Your task to perform on an android device: Go to internet settings Image 0: 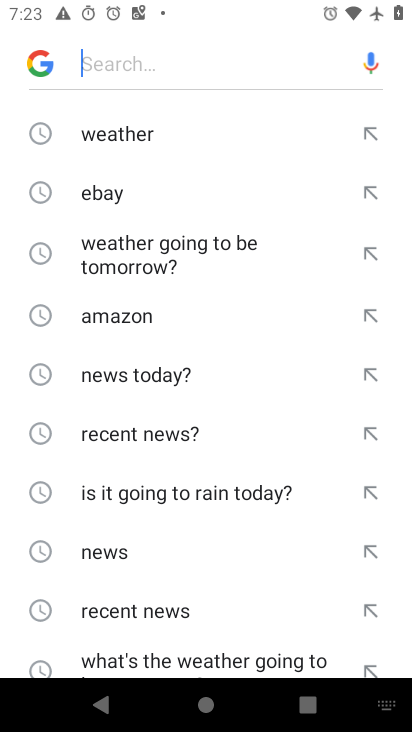
Step 0: press home button
Your task to perform on an android device: Go to internet settings Image 1: 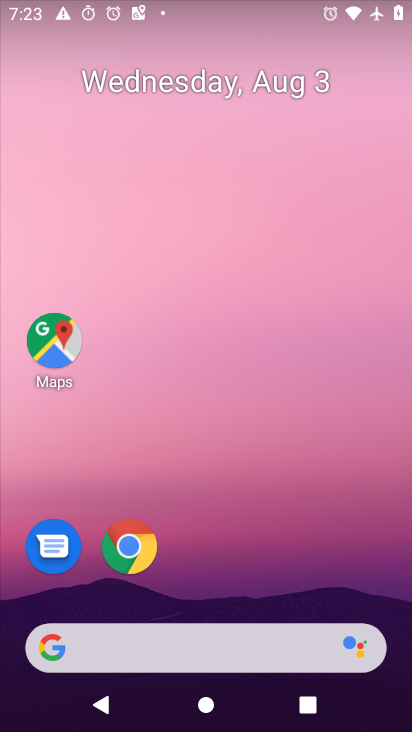
Step 1: drag from (255, 603) to (250, 186)
Your task to perform on an android device: Go to internet settings Image 2: 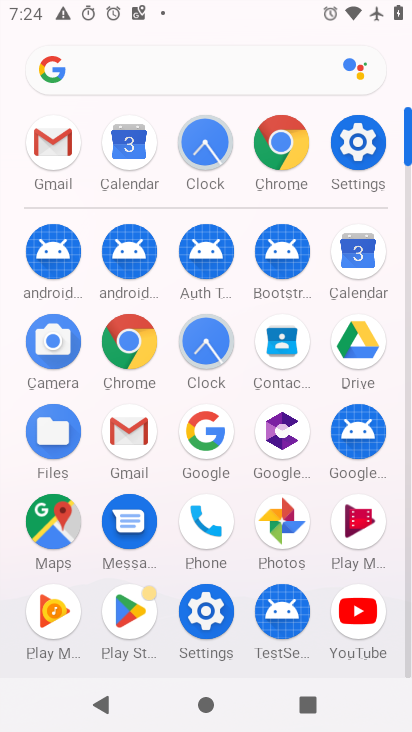
Step 2: click (369, 133)
Your task to perform on an android device: Go to internet settings Image 3: 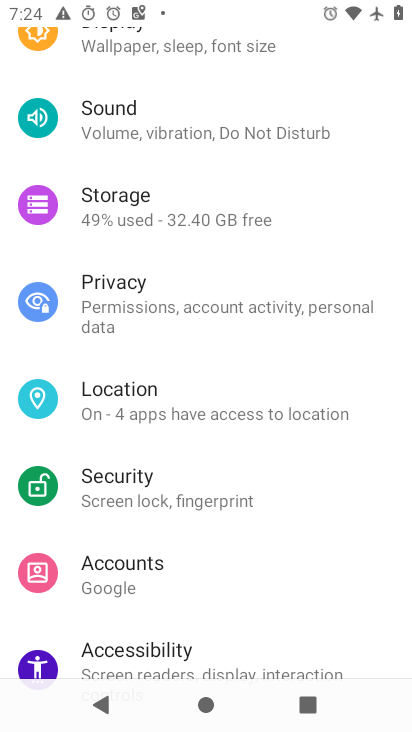
Step 3: drag from (342, 199) to (333, 614)
Your task to perform on an android device: Go to internet settings Image 4: 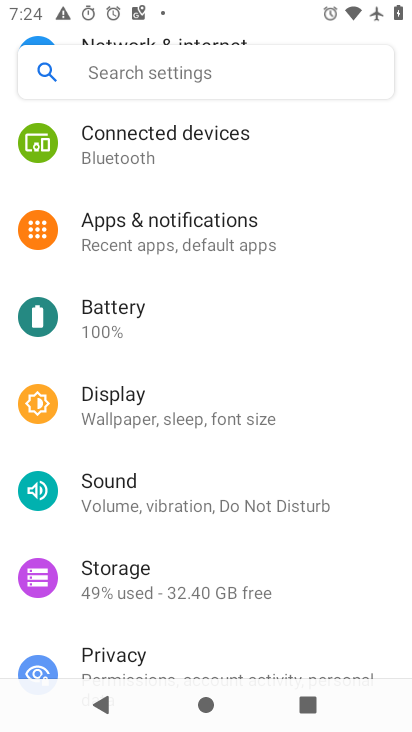
Step 4: drag from (340, 207) to (308, 597)
Your task to perform on an android device: Go to internet settings Image 5: 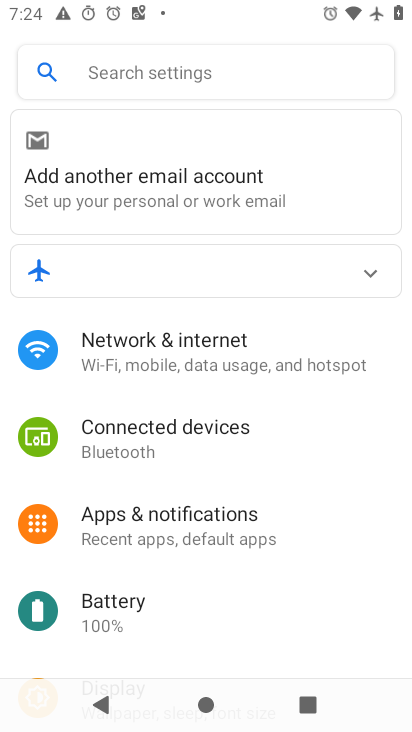
Step 5: click (162, 357)
Your task to perform on an android device: Go to internet settings Image 6: 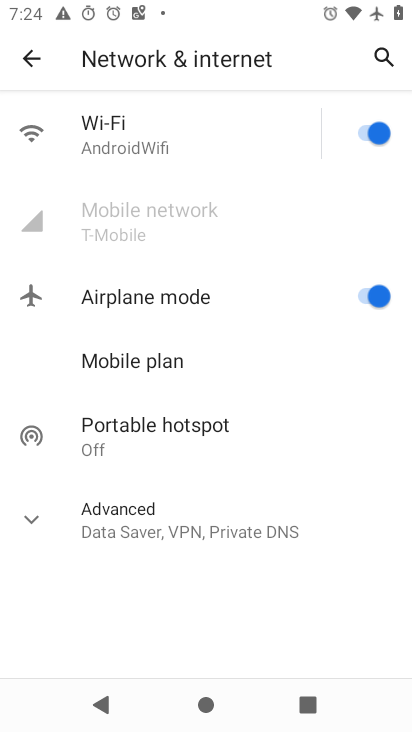
Step 6: task complete